Your task to perform on an android device: Open Chrome and go to the settings page Image 0: 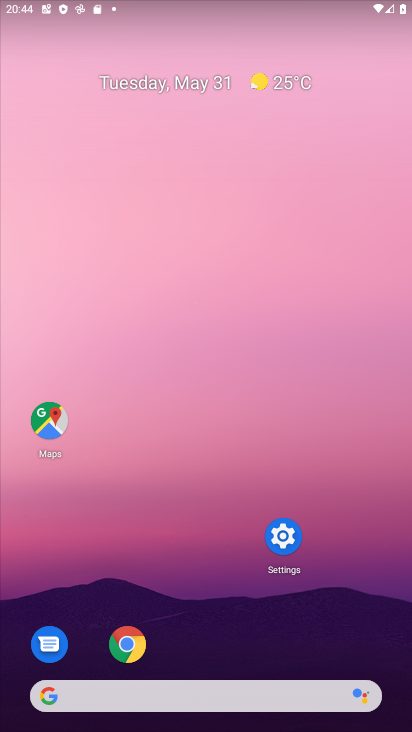
Step 0: press home button
Your task to perform on an android device: Open Chrome and go to the settings page Image 1: 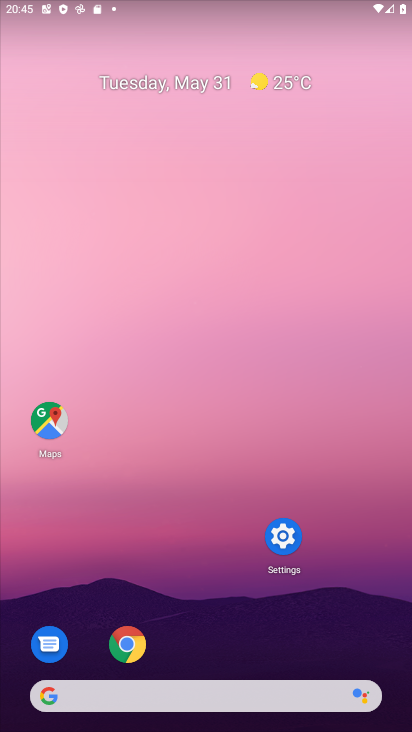
Step 1: drag from (207, 728) to (209, 198)
Your task to perform on an android device: Open Chrome and go to the settings page Image 2: 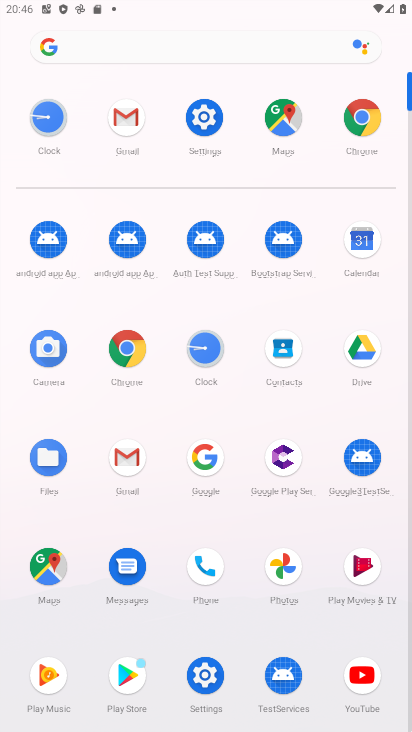
Step 2: click (350, 127)
Your task to perform on an android device: Open Chrome and go to the settings page Image 3: 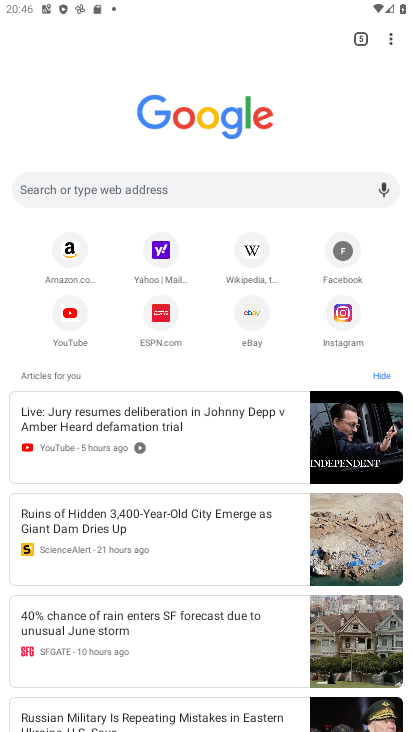
Step 3: click (389, 48)
Your task to perform on an android device: Open Chrome and go to the settings page Image 4: 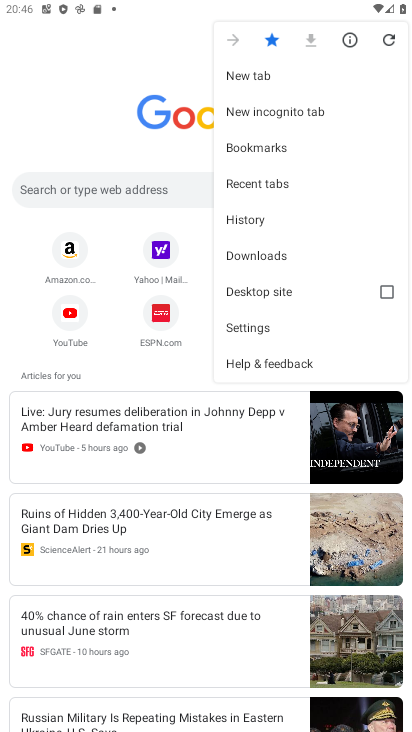
Step 4: click (245, 326)
Your task to perform on an android device: Open Chrome and go to the settings page Image 5: 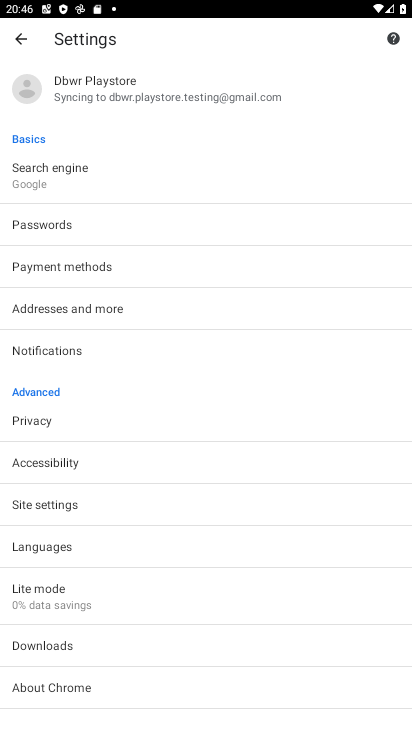
Step 5: task complete